Your task to perform on an android device: delete browsing data in the chrome app Image 0: 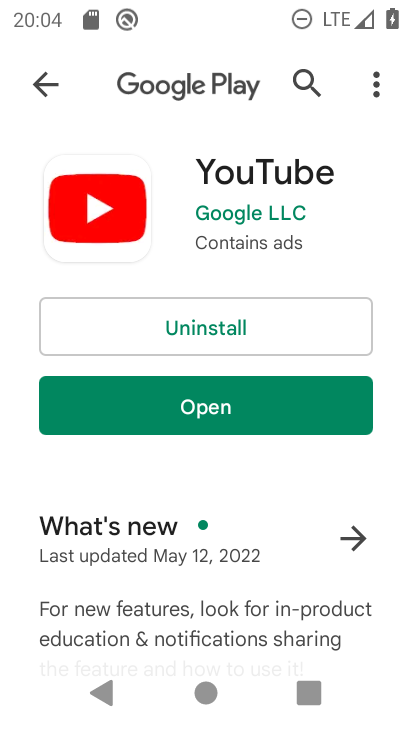
Step 0: press home button
Your task to perform on an android device: delete browsing data in the chrome app Image 1: 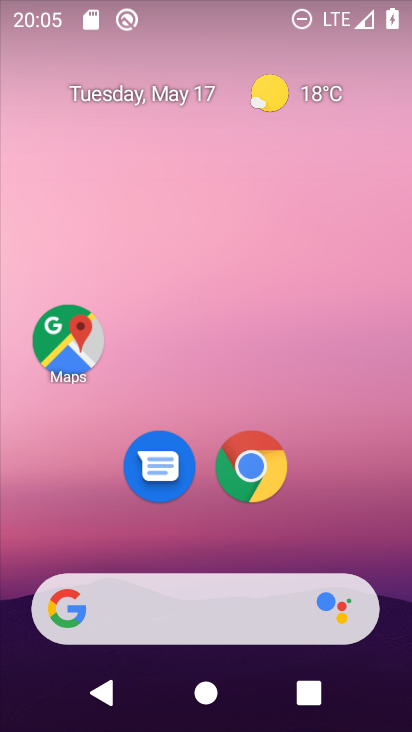
Step 1: click (255, 470)
Your task to perform on an android device: delete browsing data in the chrome app Image 2: 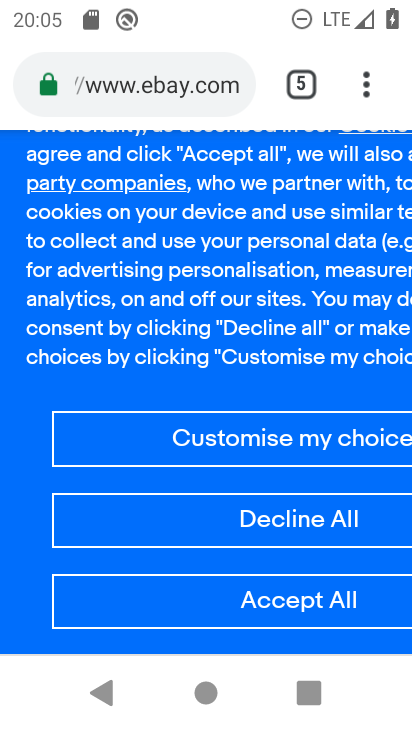
Step 2: drag from (366, 102) to (222, 515)
Your task to perform on an android device: delete browsing data in the chrome app Image 3: 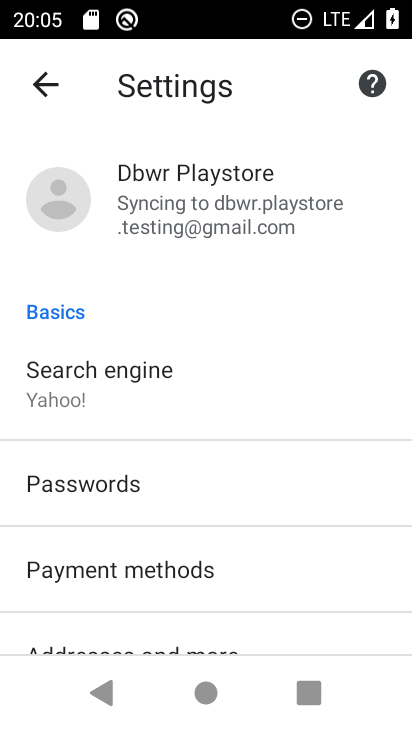
Step 3: drag from (310, 622) to (346, 383)
Your task to perform on an android device: delete browsing data in the chrome app Image 4: 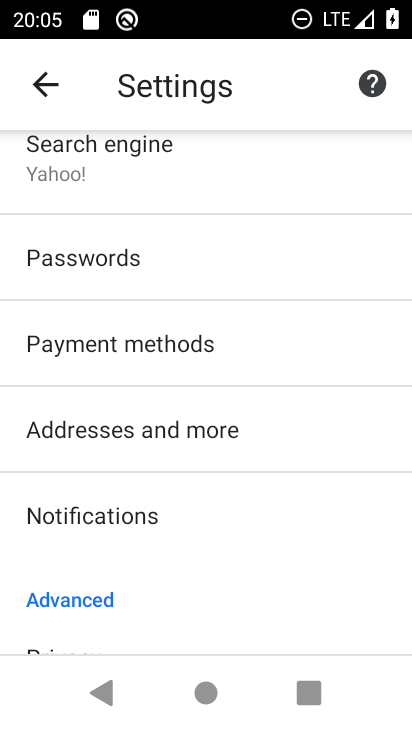
Step 4: drag from (260, 594) to (301, 415)
Your task to perform on an android device: delete browsing data in the chrome app Image 5: 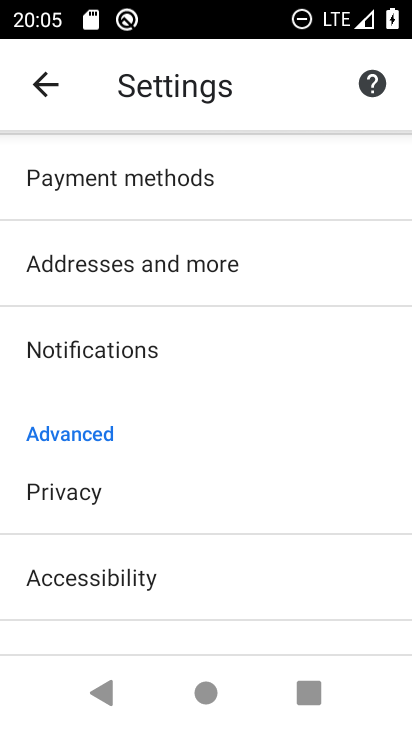
Step 5: click (95, 491)
Your task to perform on an android device: delete browsing data in the chrome app Image 6: 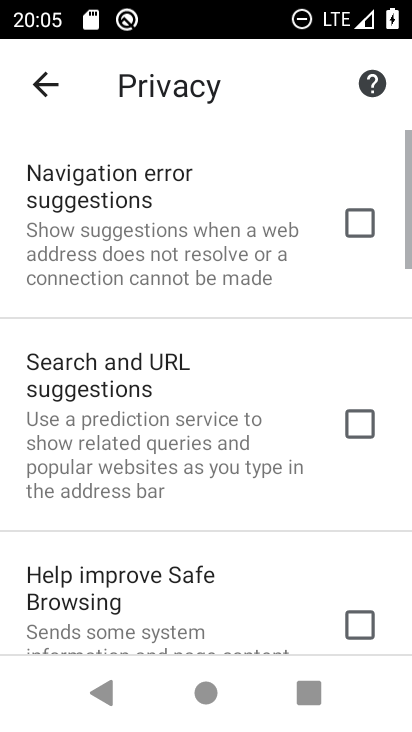
Step 6: drag from (248, 630) to (348, 167)
Your task to perform on an android device: delete browsing data in the chrome app Image 7: 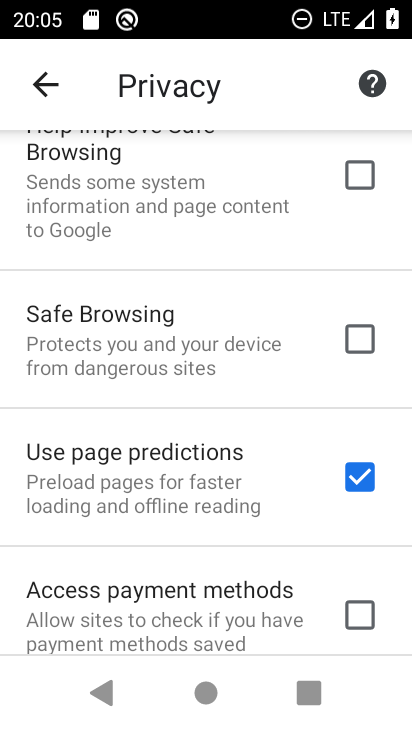
Step 7: drag from (257, 616) to (405, 162)
Your task to perform on an android device: delete browsing data in the chrome app Image 8: 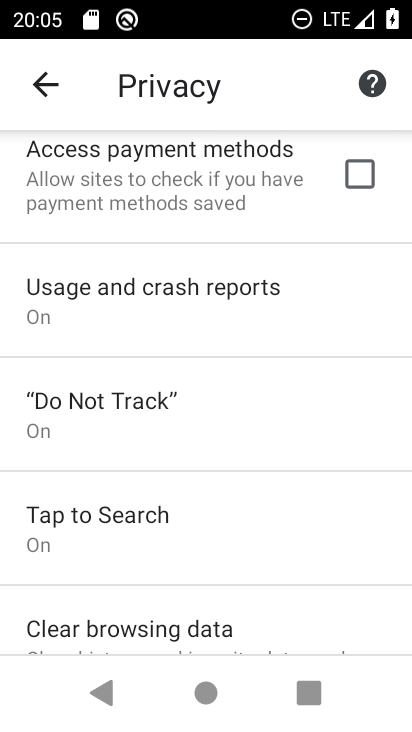
Step 8: drag from (222, 567) to (343, 302)
Your task to perform on an android device: delete browsing data in the chrome app Image 9: 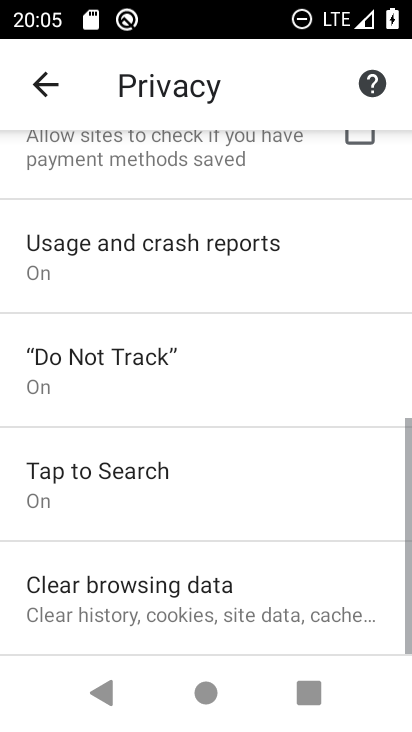
Step 9: click (219, 591)
Your task to perform on an android device: delete browsing data in the chrome app Image 10: 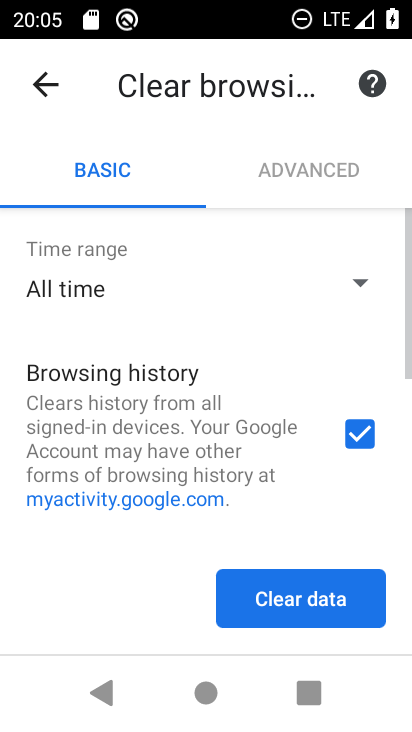
Step 10: drag from (254, 458) to (348, 262)
Your task to perform on an android device: delete browsing data in the chrome app Image 11: 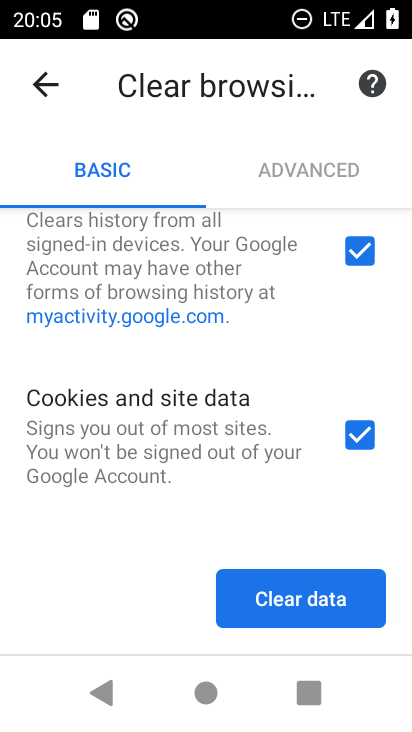
Step 11: drag from (282, 474) to (334, 227)
Your task to perform on an android device: delete browsing data in the chrome app Image 12: 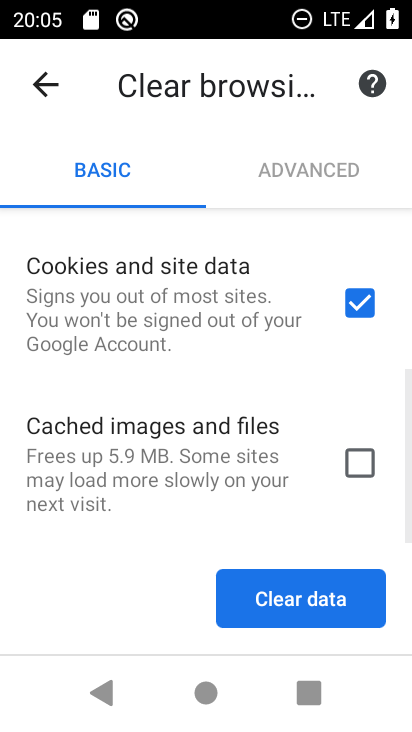
Step 12: click (369, 472)
Your task to perform on an android device: delete browsing data in the chrome app Image 13: 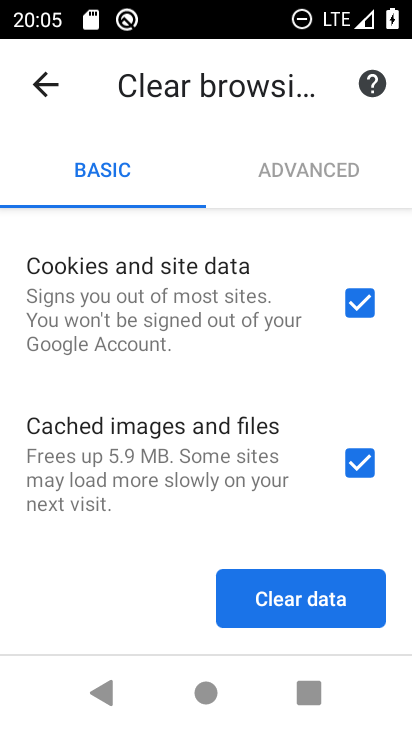
Step 13: click (279, 603)
Your task to perform on an android device: delete browsing data in the chrome app Image 14: 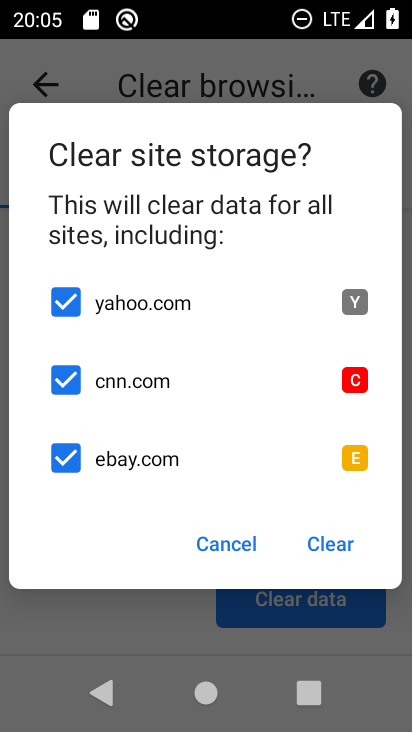
Step 14: click (327, 548)
Your task to perform on an android device: delete browsing data in the chrome app Image 15: 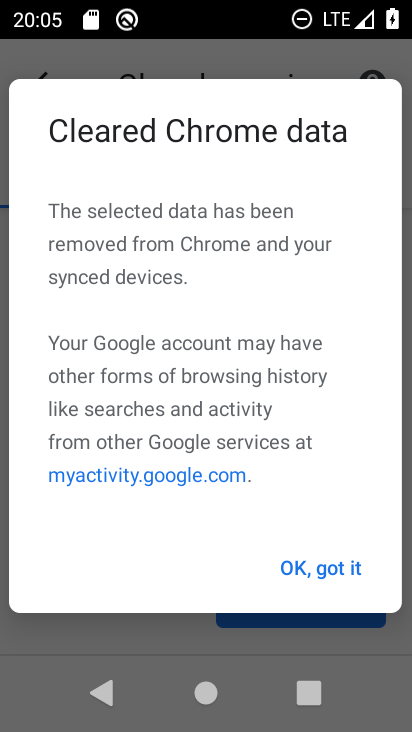
Step 15: click (332, 569)
Your task to perform on an android device: delete browsing data in the chrome app Image 16: 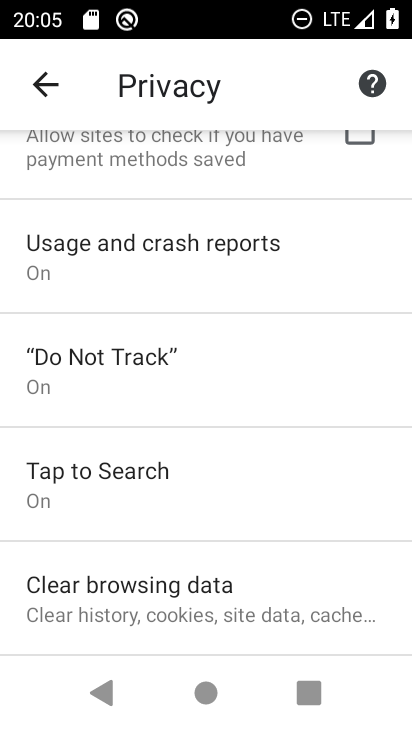
Step 16: task complete